Your task to perform on an android device: move a message to another label in the gmail app Image 0: 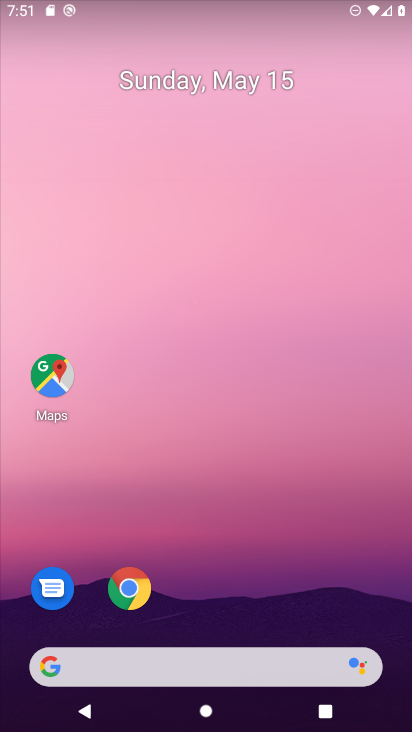
Step 0: press home button
Your task to perform on an android device: move a message to another label in the gmail app Image 1: 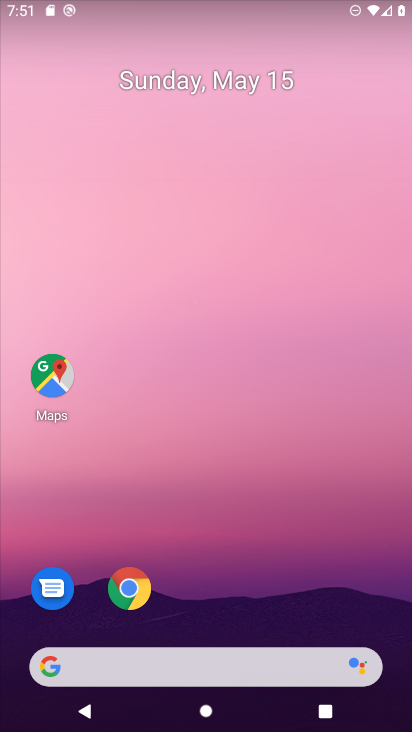
Step 1: drag from (203, 615) to (253, 33)
Your task to perform on an android device: move a message to another label in the gmail app Image 2: 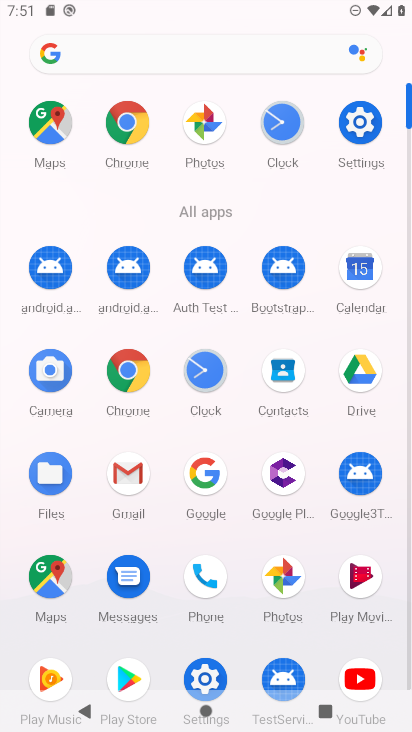
Step 2: click (127, 466)
Your task to perform on an android device: move a message to another label in the gmail app Image 3: 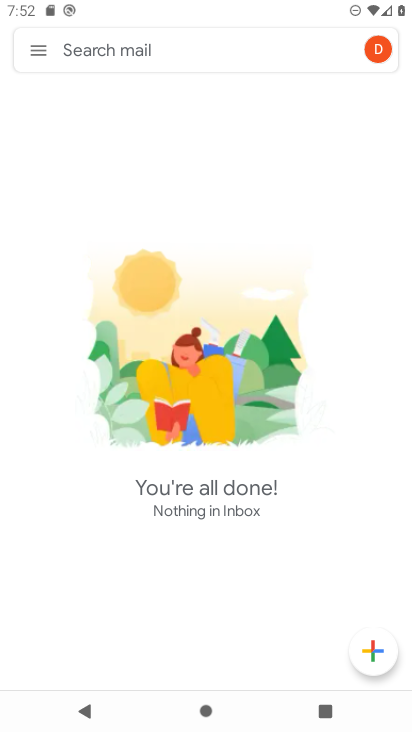
Step 3: task complete